Your task to perform on an android device: Open Android settings Image 0: 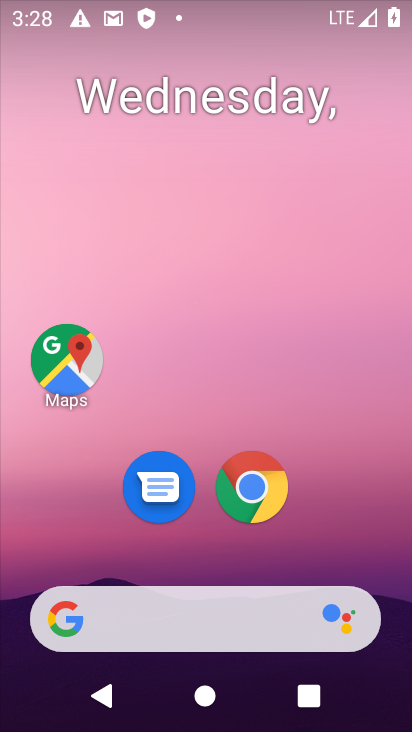
Step 0: drag from (357, 553) to (326, 80)
Your task to perform on an android device: Open Android settings Image 1: 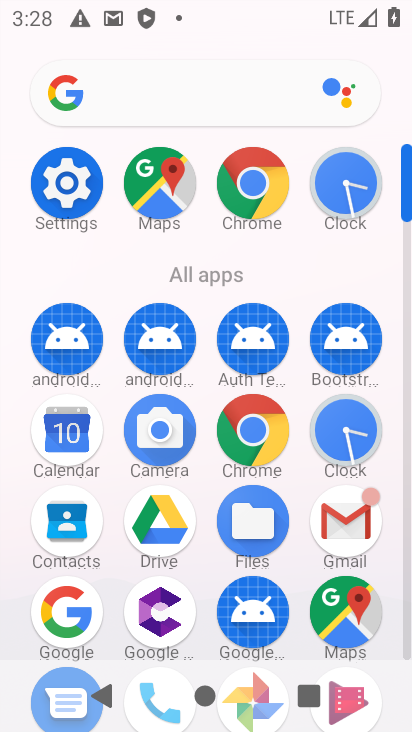
Step 1: click (63, 190)
Your task to perform on an android device: Open Android settings Image 2: 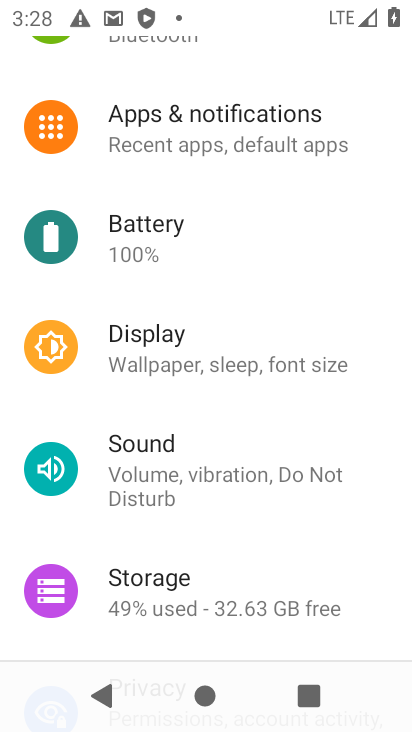
Step 2: task complete